Your task to perform on an android device: Open internet settings Image 0: 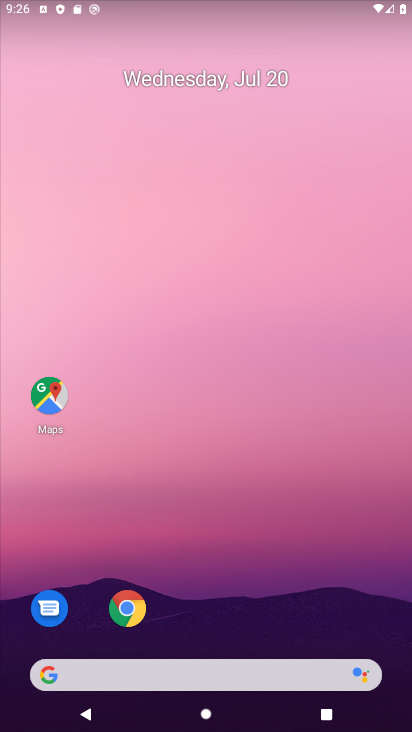
Step 0: drag from (228, 632) to (238, 101)
Your task to perform on an android device: Open internet settings Image 1: 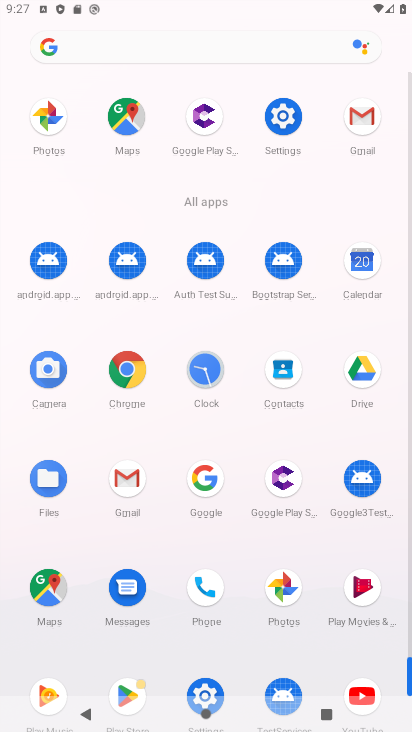
Step 1: drag from (234, 546) to (241, 645)
Your task to perform on an android device: Open internet settings Image 2: 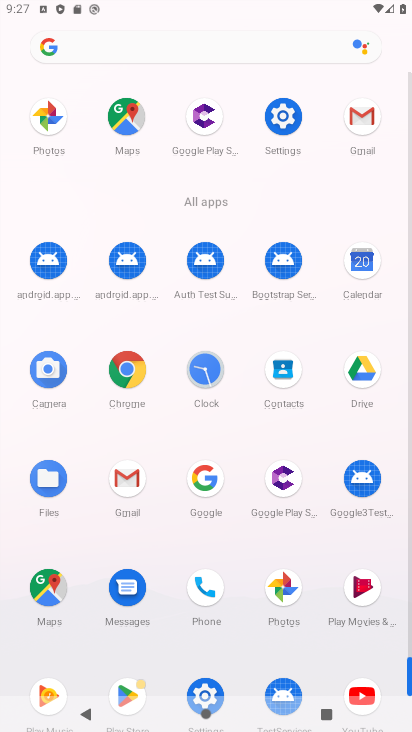
Step 2: click (204, 682)
Your task to perform on an android device: Open internet settings Image 3: 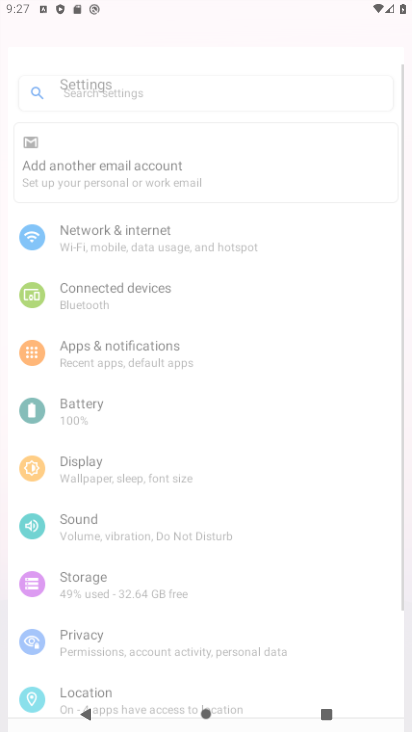
Step 3: click (209, 684)
Your task to perform on an android device: Open internet settings Image 4: 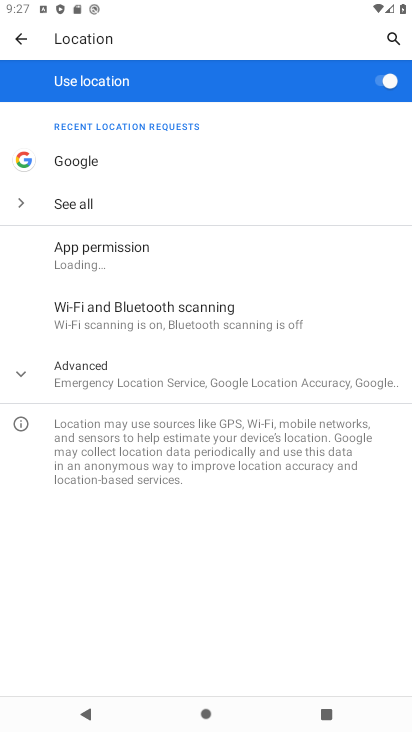
Step 4: press back button
Your task to perform on an android device: Open internet settings Image 5: 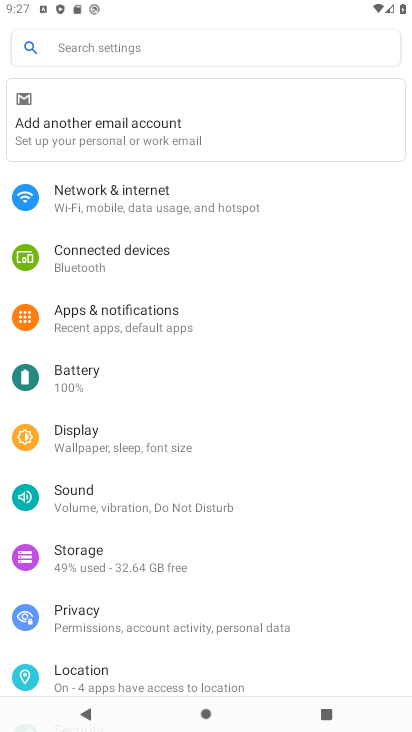
Step 5: click (146, 194)
Your task to perform on an android device: Open internet settings Image 6: 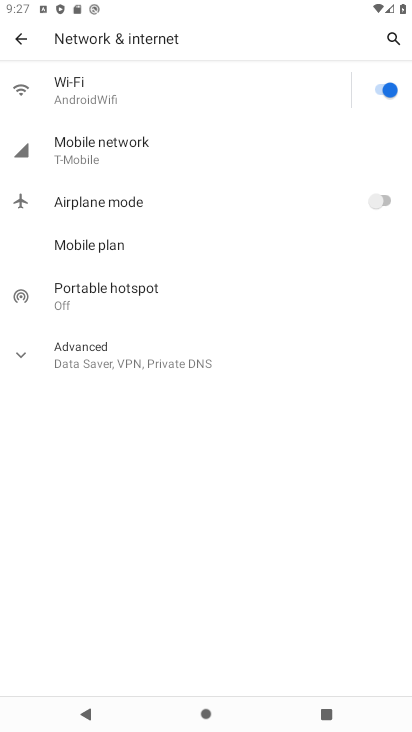
Step 6: click (163, 163)
Your task to perform on an android device: Open internet settings Image 7: 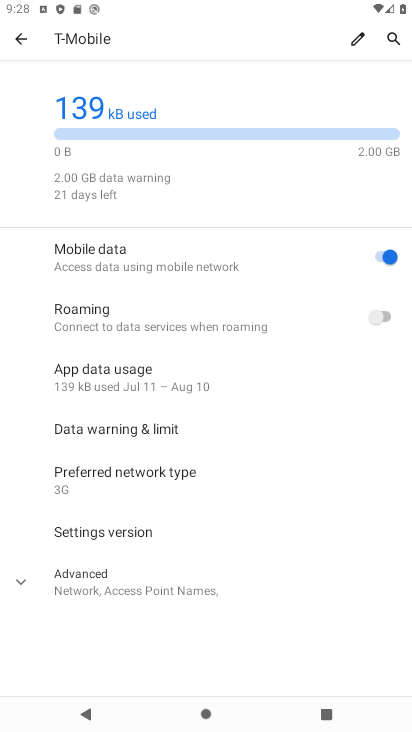
Step 7: click (152, 594)
Your task to perform on an android device: Open internet settings Image 8: 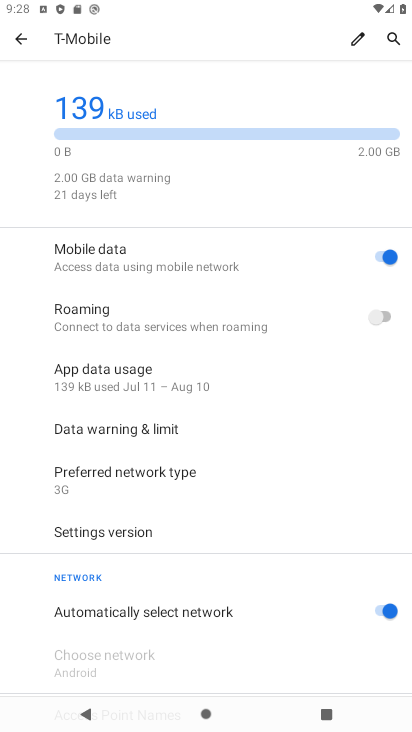
Step 8: task complete